Your task to perform on an android device: see tabs open on other devices in the chrome app Image 0: 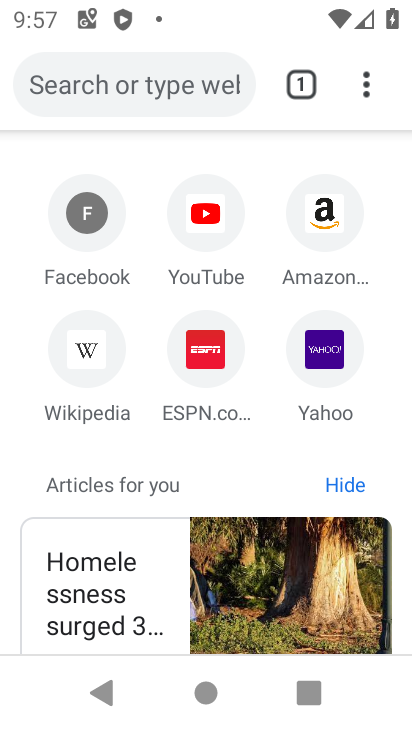
Step 0: click (365, 91)
Your task to perform on an android device: see tabs open on other devices in the chrome app Image 1: 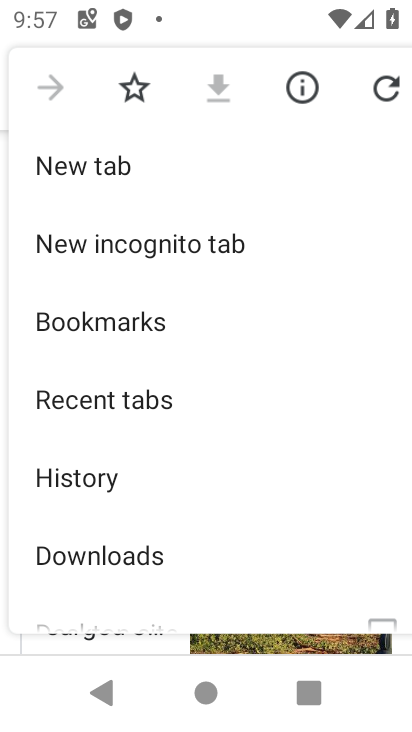
Step 1: click (96, 401)
Your task to perform on an android device: see tabs open on other devices in the chrome app Image 2: 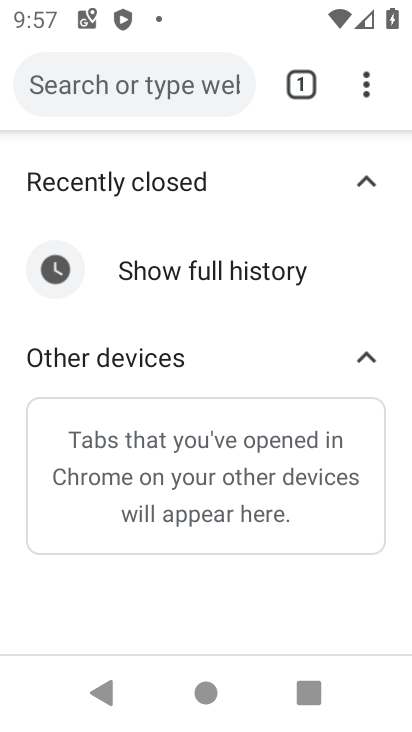
Step 2: task complete